Your task to perform on an android device: open chrome privacy settings Image 0: 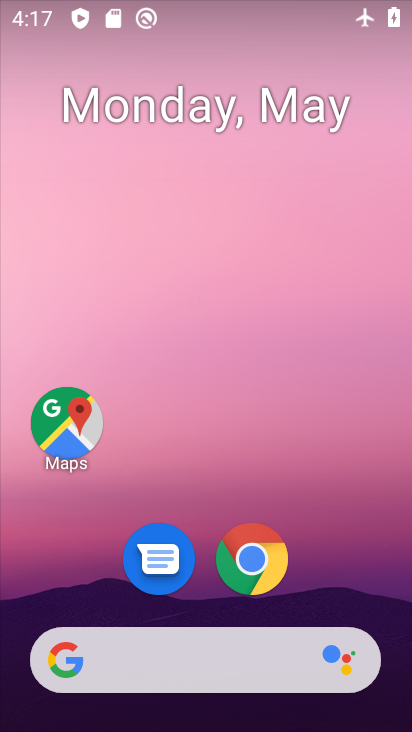
Step 0: drag from (325, 538) to (236, 36)
Your task to perform on an android device: open chrome privacy settings Image 1: 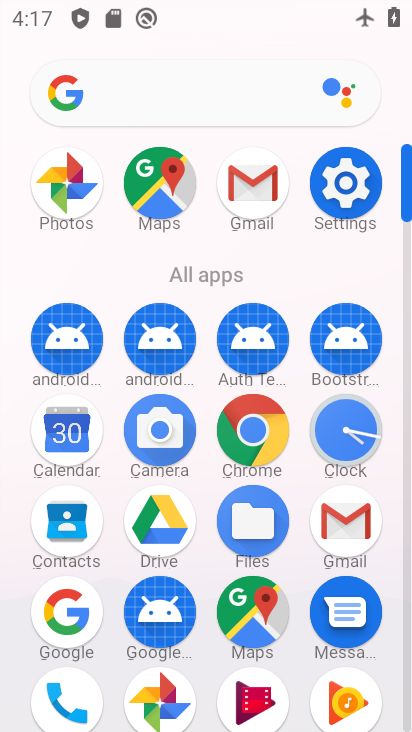
Step 1: click (250, 425)
Your task to perform on an android device: open chrome privacy settings Image 2: 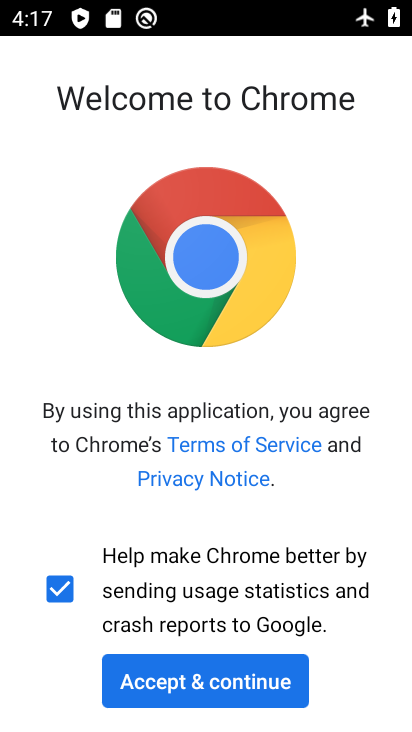
Step 2: click (196, 681)
Your task to perform on an android device: open chrome privacy settings Image 3: 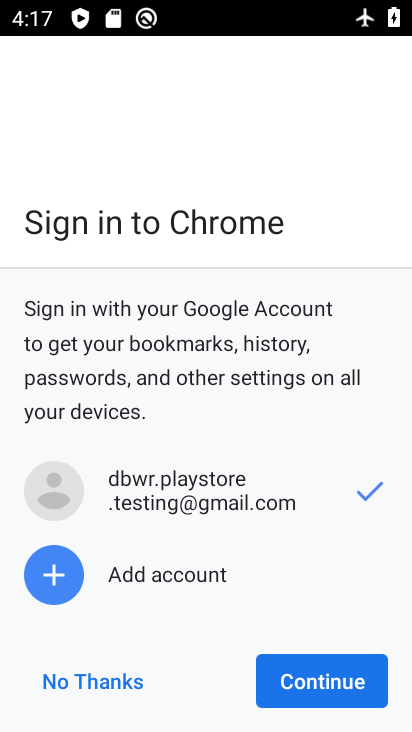
Step 3: click (308, 688)
Your task to perform on an android device: open chrome privacy settings Image 4: 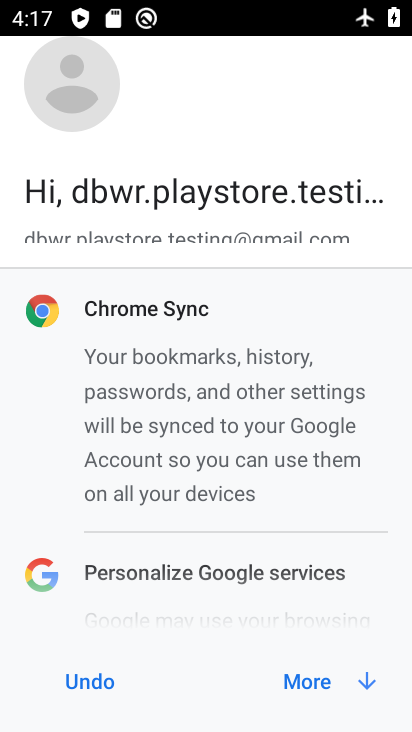
Step 4: click (306, 682)
Your task to perform on an android device: open chrome privacy settings Image 5: 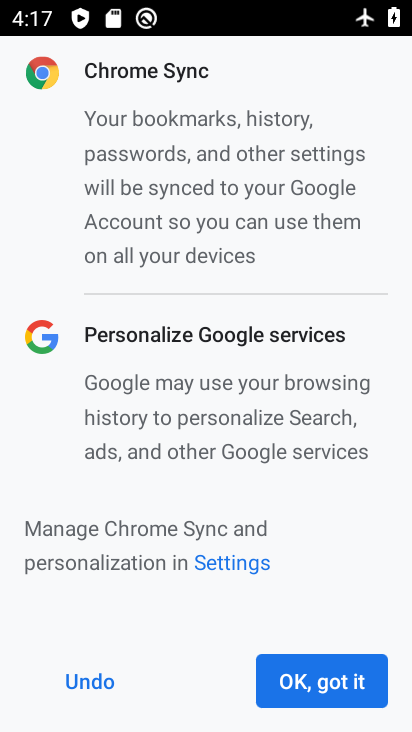
Step 5: click (306, 682)
Your task to perform on an android device: open chrome privacy settings Image 6: 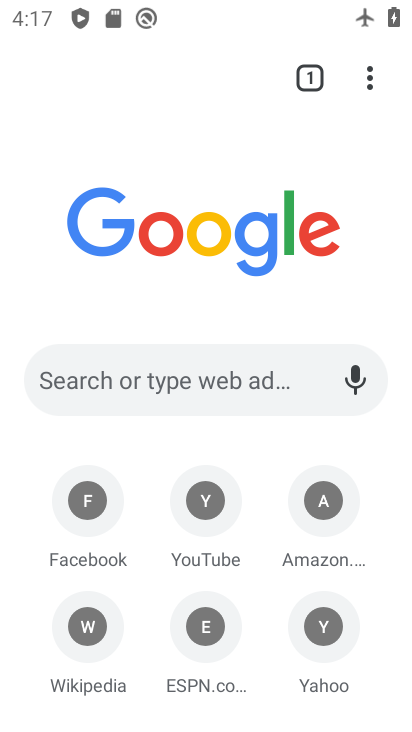
Step 6: drag from (370, 75) to (127, 629)
Your task to perform on an android device: open chrome privacy settings Image 7: 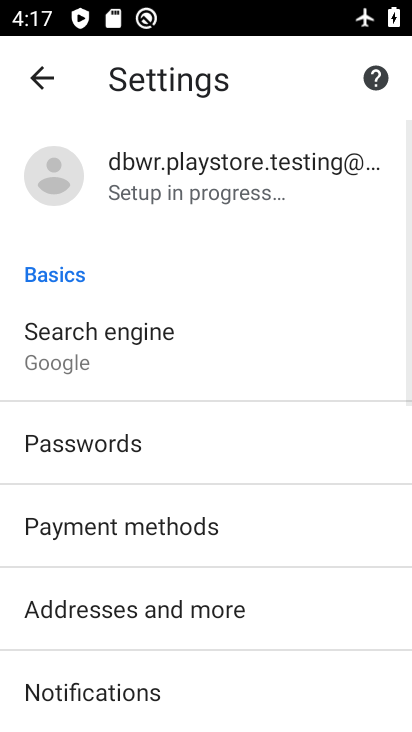
Step 7: drag from (294, 565) to (299, 156)
Your task to perform on an android device: open chrome privacy settings Image 8: 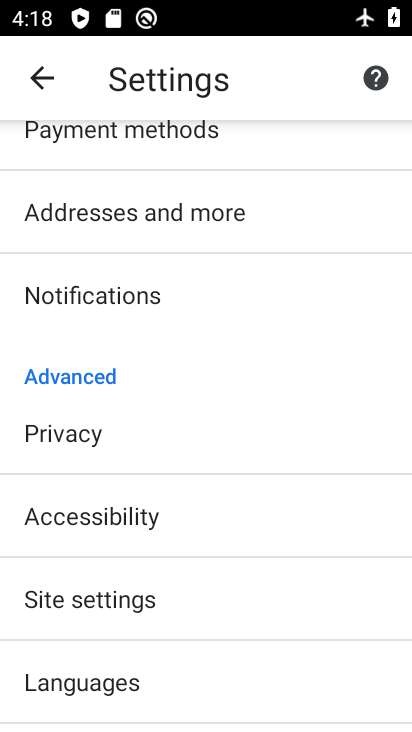
Step 8: click (80, 434)
Your task to perform on an android device: open chrome privacy settings Image 9: 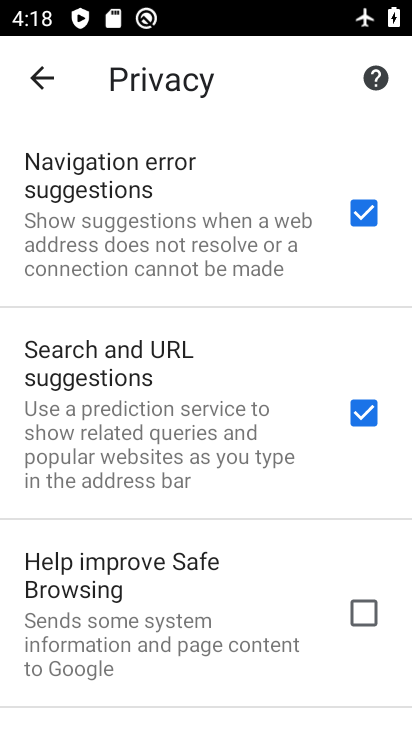
Step 9: task complete